Your task to perform on an android device: toggle show notifications on the lock screen Image 0: 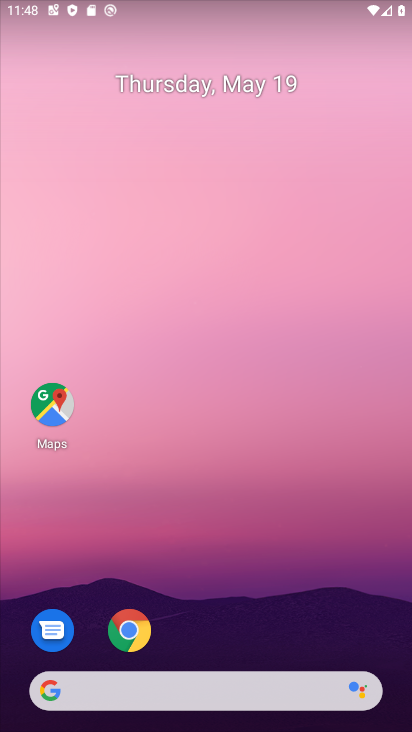
Step 0: drag from (238, 597) to (198, 165)
Your task to perform on an android device: toggle show notifications on the lock screen Image 1: 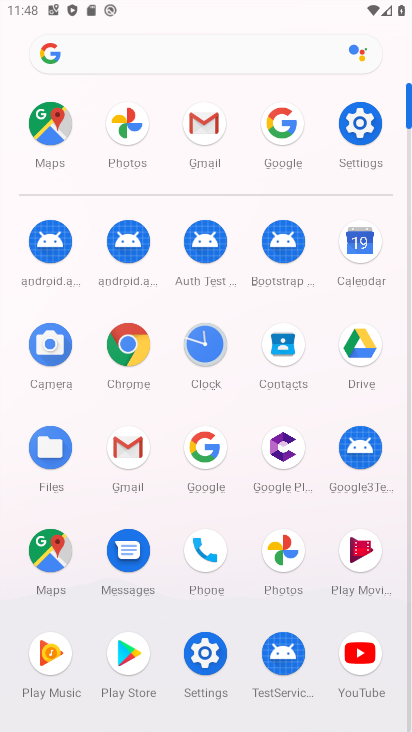
Step 1: click (361, 122)
Your task to perform on an android device: toggle show notifications on the lock screen Image 2: 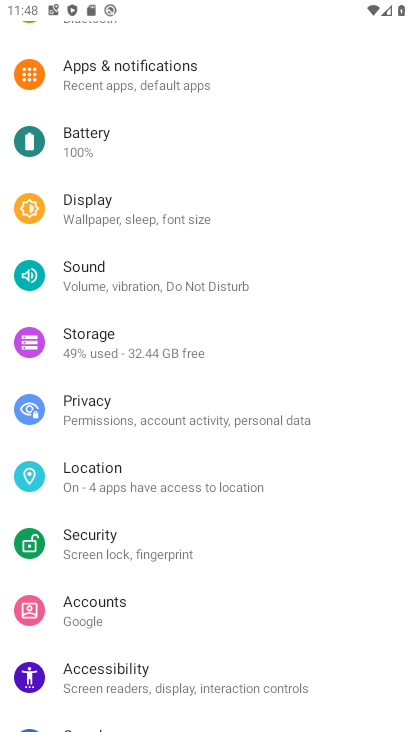
Step 2: click (165, 89)
Your task to perform on an android device: toggle show notifications on the lock screen Image 3: 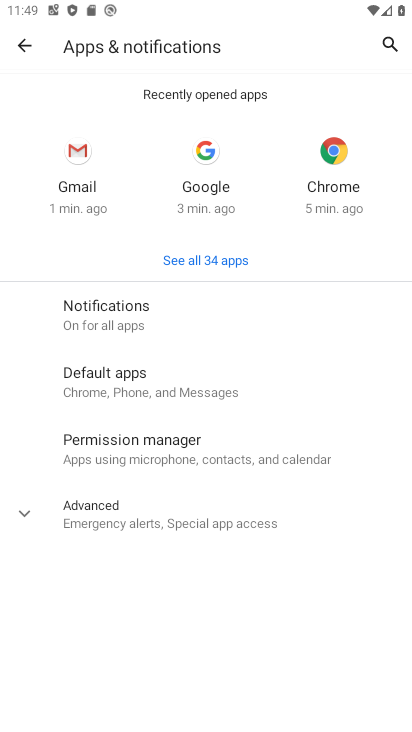
Step 3: click (111, 319)
Your task to perform on an android device: toggle show notifications on the lock screen Image 4: 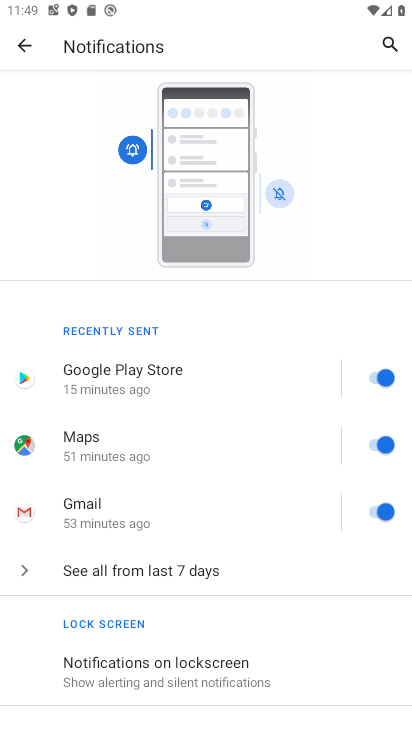
Step 4: click (171, 658)
Your task to perform on an android device: toggle show notifications on the lock screen Image 5: 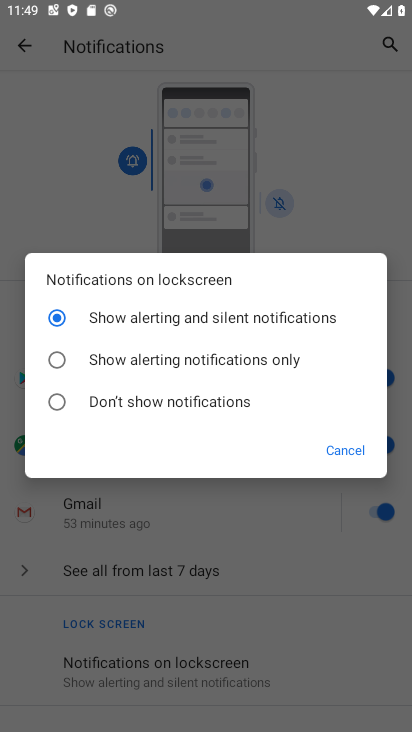
Step 5: click (62, 406)
Your task to perform on an android device: toggle show notifications on the lock screen Image 6: 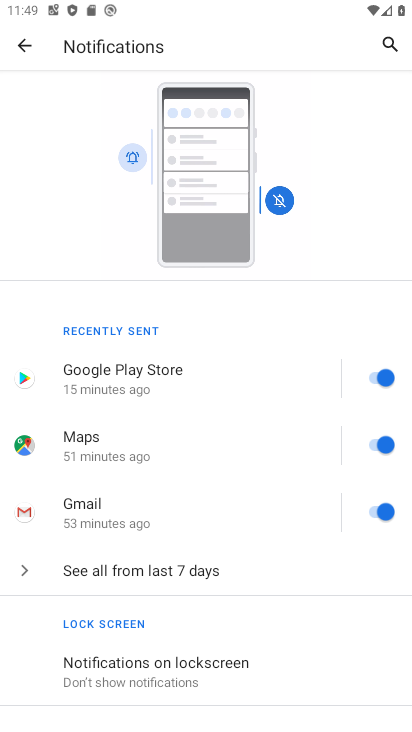
Step 6: task complete